Your task to perform on an android device: Go to Google maps Image 0: 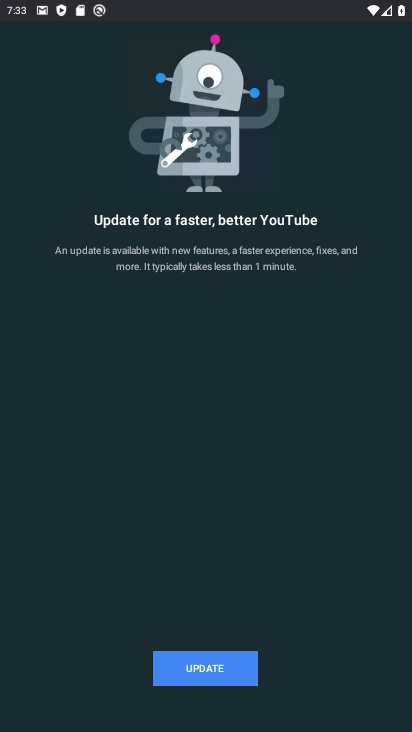
Step 0: press home button
Your task to perform on an android device: Go to Google maps Image 1: 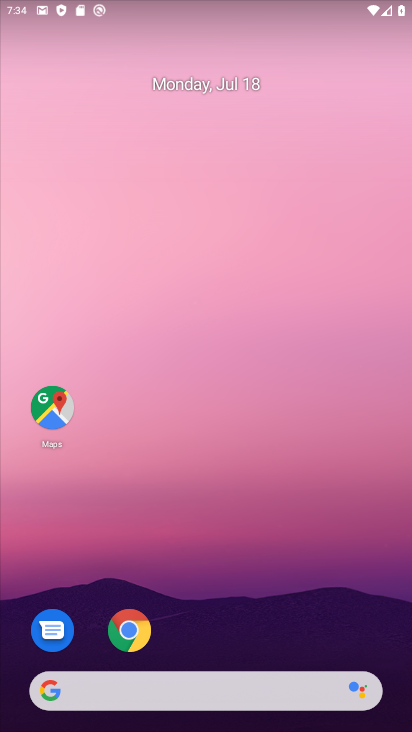
Step 1: click (56, 422)
Your task to perform on an android device: Go to Google maps Image 2: 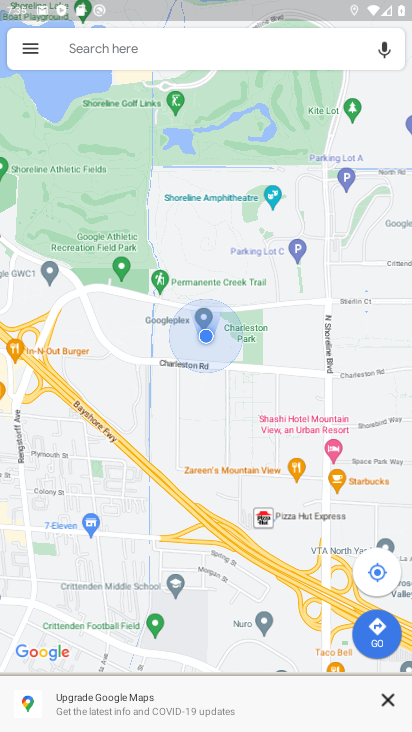
Step 2: task complete